Your task to perform on an android device: toggle show notifications on the lock screen Image 0: 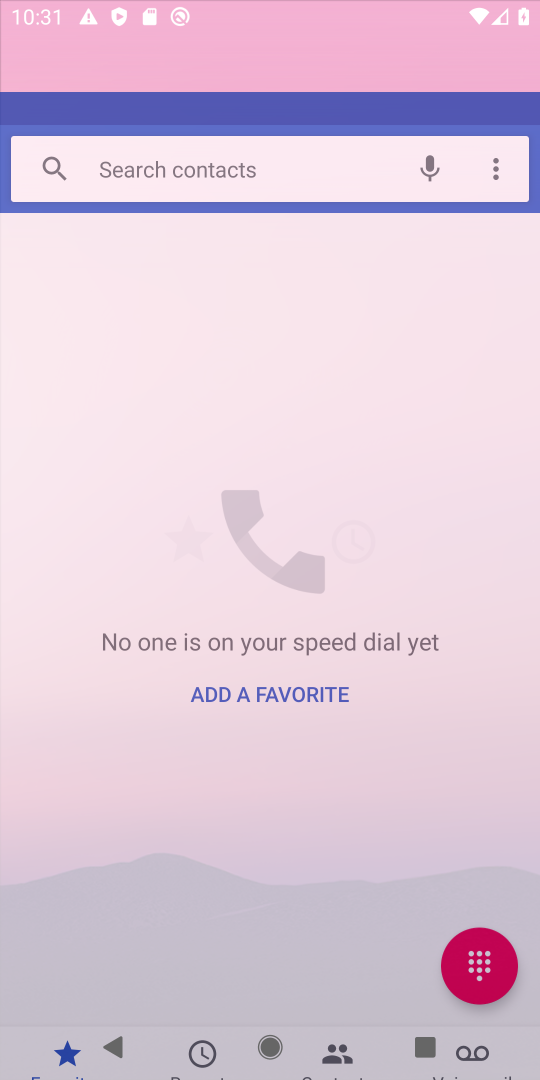
Step 0: click (374, 851)
Your task to perform on an android device: toggle show notifications on the lock screen Image 1: 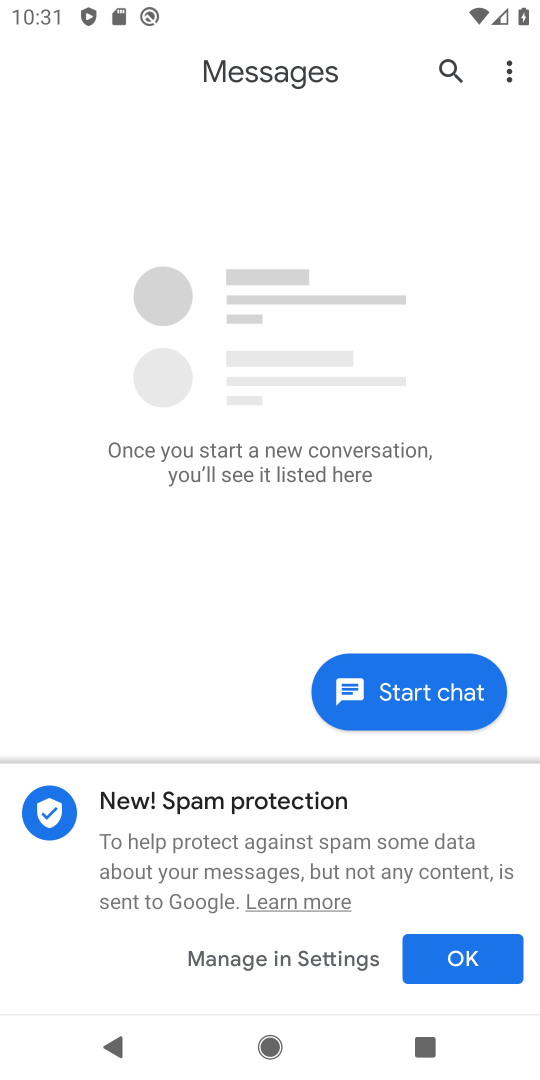
Step 1: press back button
Your task to perform on an android device: toggle show notifications on the lock screen Image 2: 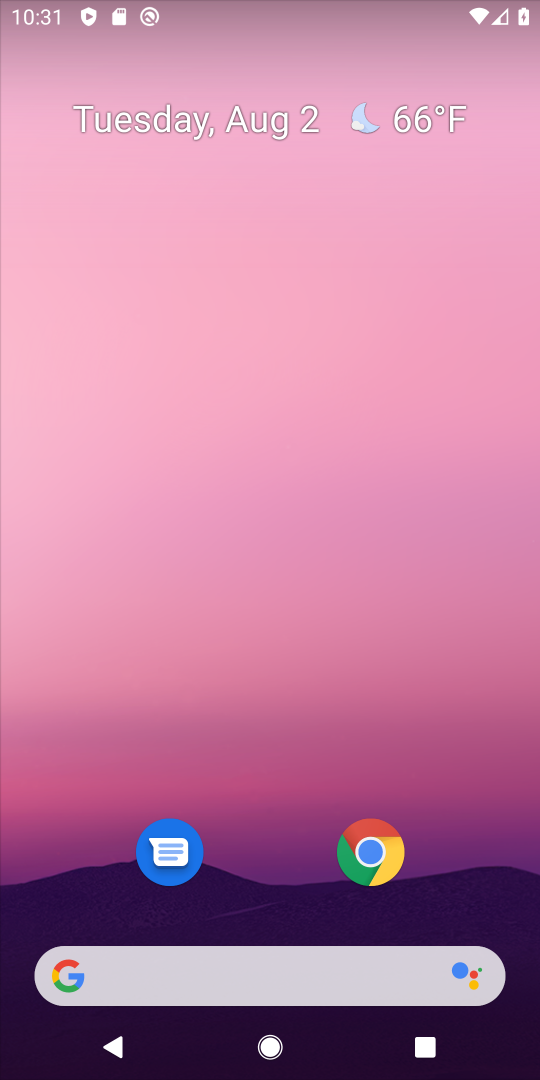
Step 2: drag from (513, 899) to (326, 122)
Your task to perform on an android device: toggle show notifications on the lock screen Image 3: 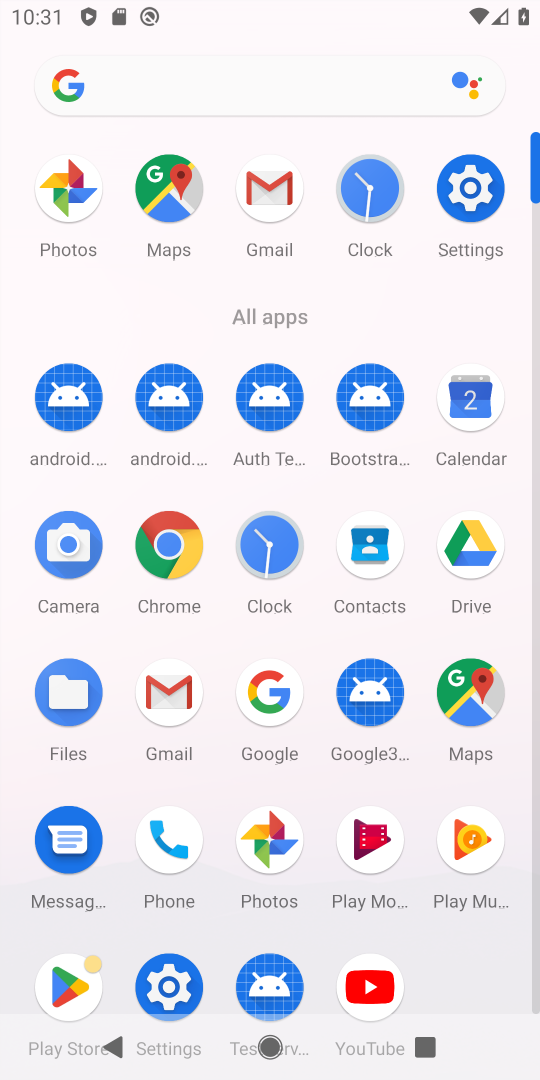
Step 3: click (478, 174)
Your task to perform on an android device: toggle show notifications on the lock screen Image 4: 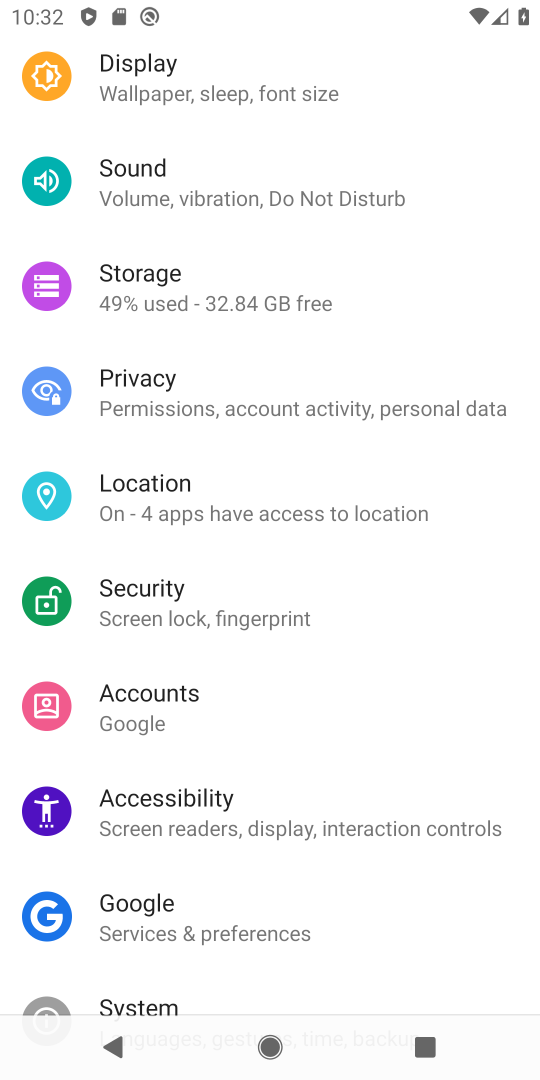
Step 4: drag from (240, 162) to (228, 948)
Your task to perform on an android device: toggle show notifications on the lock screen Image 5: 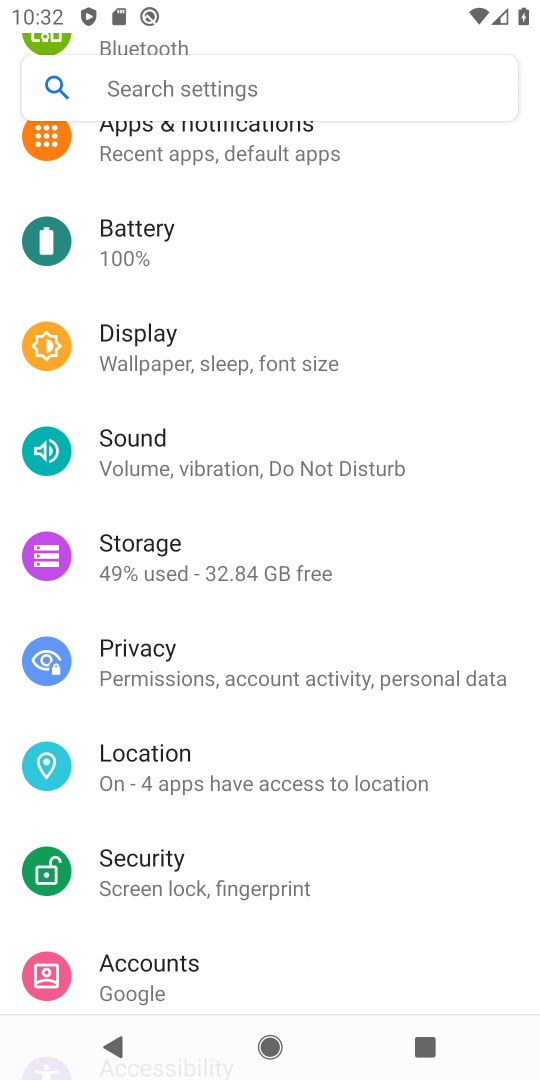
Step 5: drag from (256, 218) to (293, 629)
Your task to perform on an android device: toggle show notifications on the lock screen Image 6: 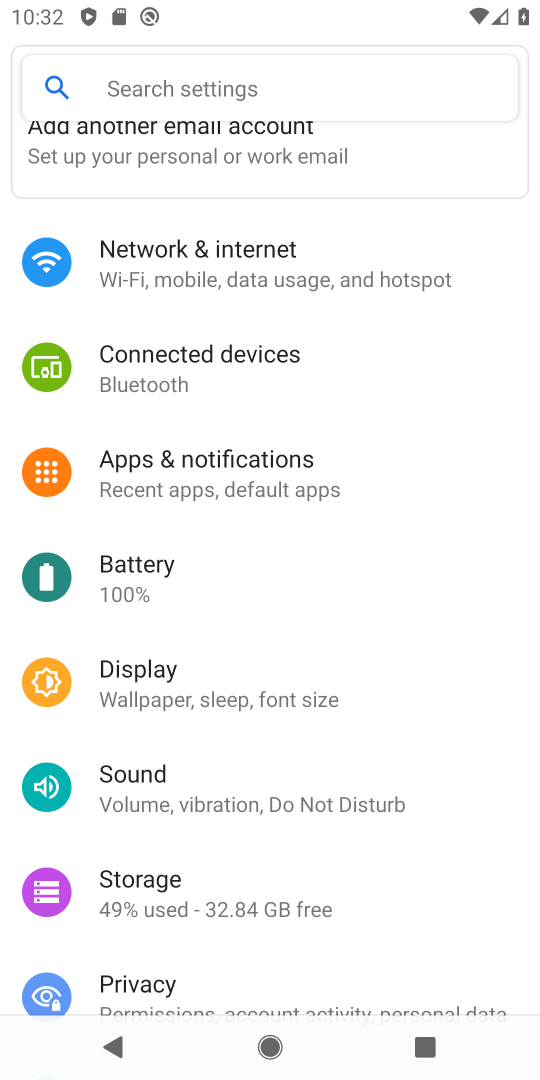
Step 6: click (300, 473)
Your task to perform on an android device: toggle show notifications on the lock screen Image 7: 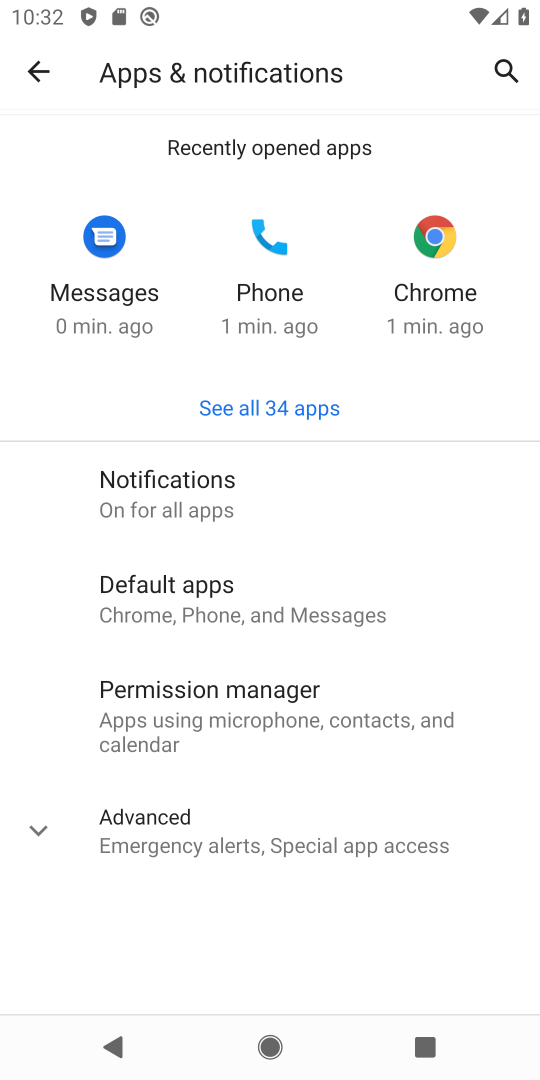
Step 7: click (294, 480)
Your task to perform on an android device: toggle show notifications on the lock screen Image 8: 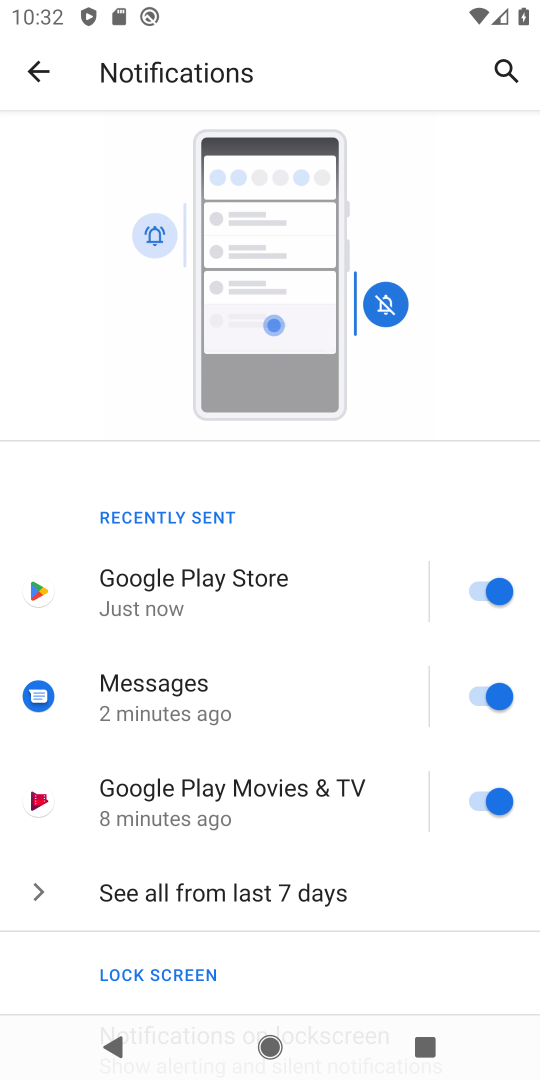
Step 8: drag from (307, 968) to (186, 171)
Your task to perform on an android device: toggle show notifications on the lock screen Image 9: 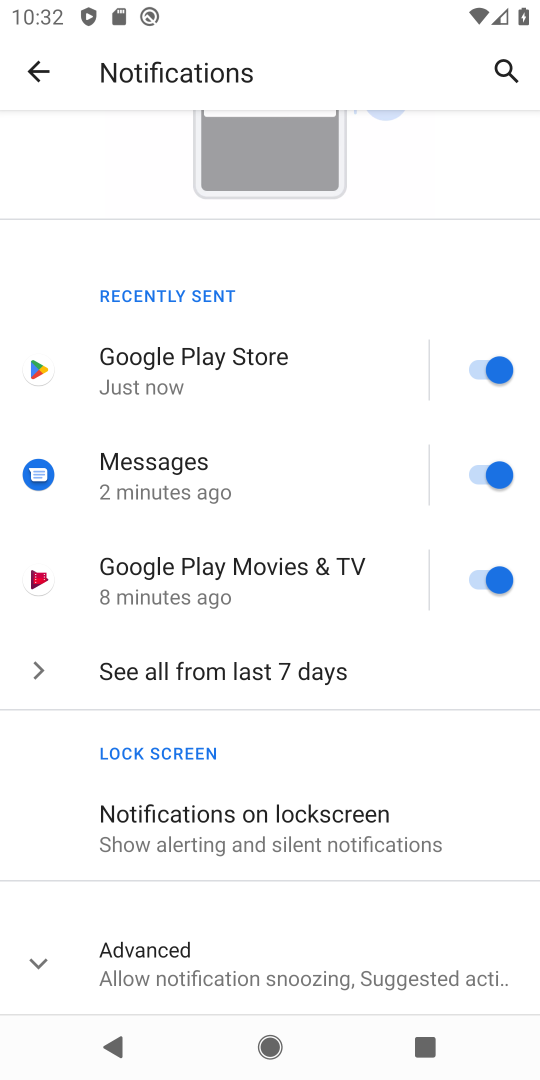
Step 9: click (348, 828)
Your task to perform on an android device: toggle show notifications on the lock screen Image 10: 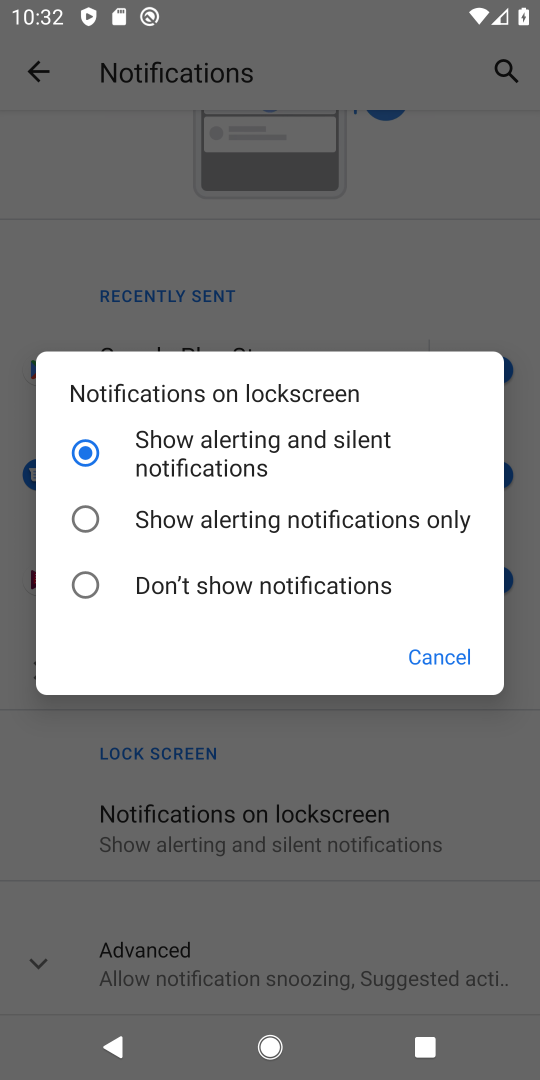
Step 10: click (352, 526)
Your task to perform on an android device: toggle show notifications on the lock screen Image 11: 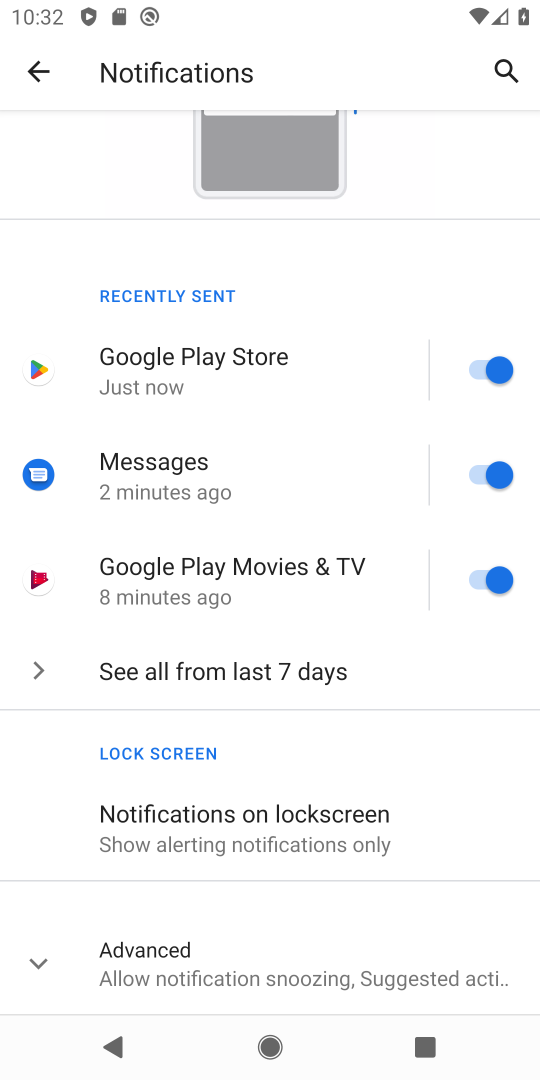
Step 11: task complete